Your task to perform on an android device: Go to Android settings Image 0: 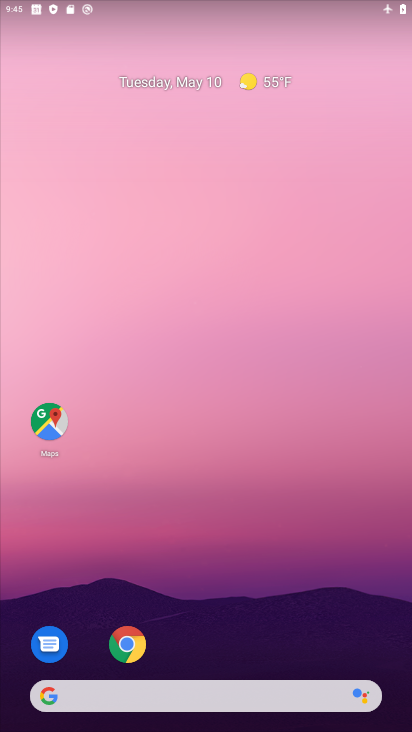
Step 0: drag from (176, 628) to (192, 396)
Your task to perform on an android device: Go to Android settings Image 1: 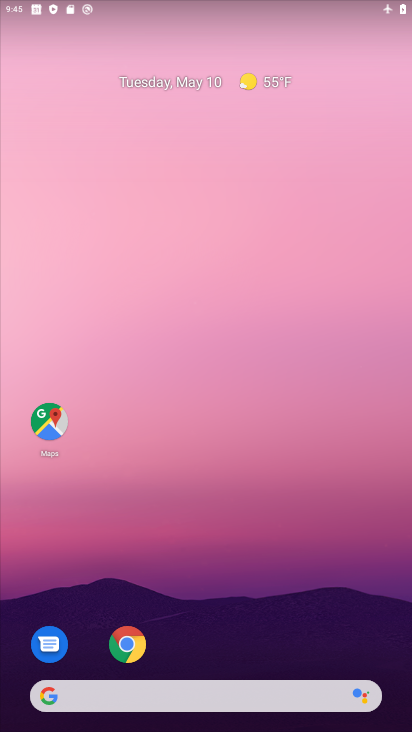
Step 1: drag from (203, 631) to (213, 281)
Your task to perform on an android device: Go to Android settings Image 2: 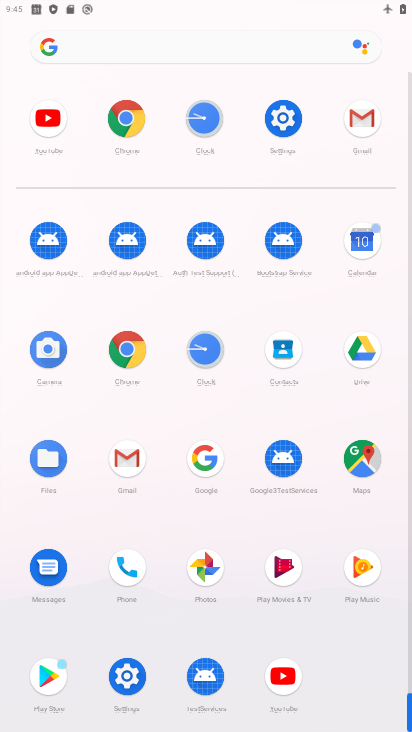
Step 2: click (285, 131)
Your task to perform on an android device: Go to Android settings Image 3: 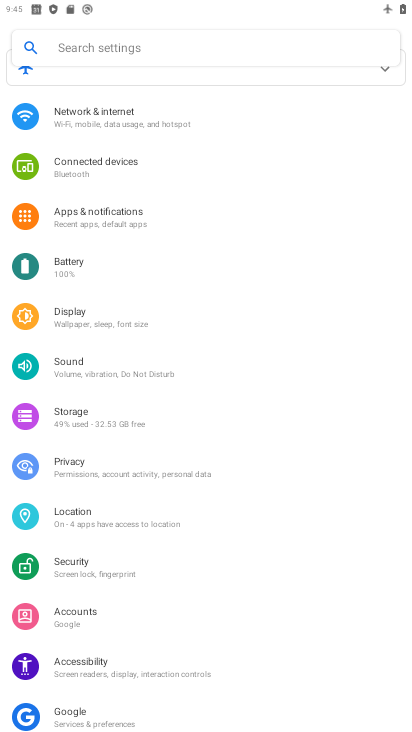
Step 3: drag from (166, 466) to (261, 20)
Your task to perform on an android device: Go to Android settings Image 4: 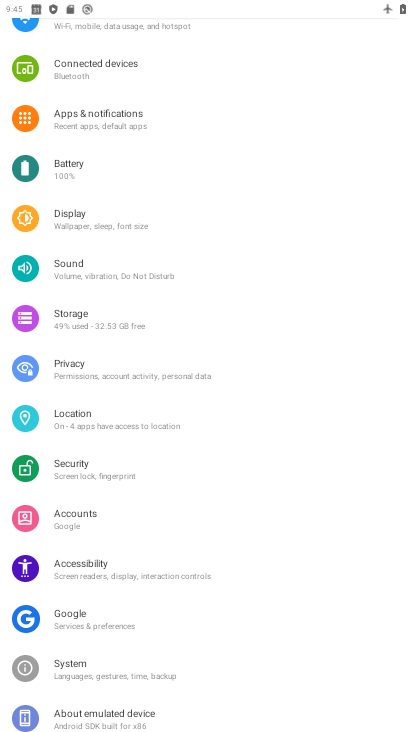
Step 4: drag from (179, 583) to (289, 7)
Your task to perform on an android device: Go to Android settings Image 5: 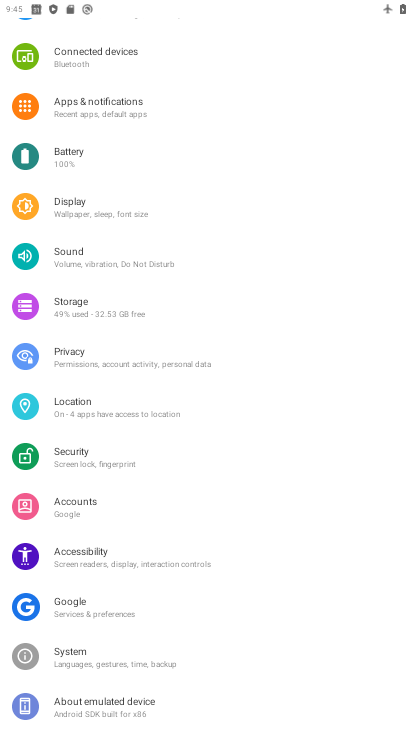
Step 5: click (147, 702)
Your task to perform on an android device: Go to Android settings Image 6: 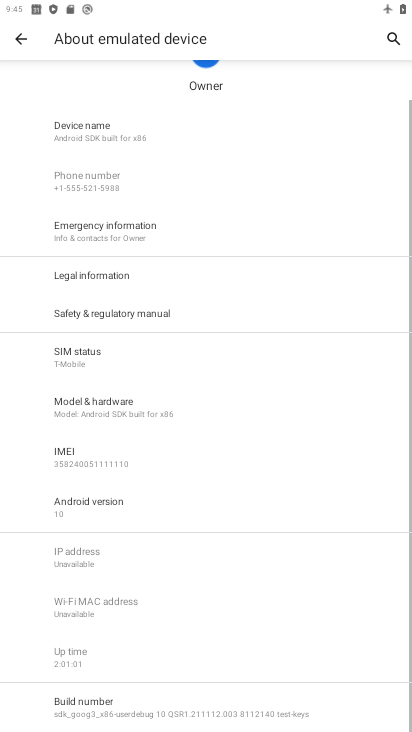
Step 6: task complete